Your task to perform on an android device: change timer sound Image 0: 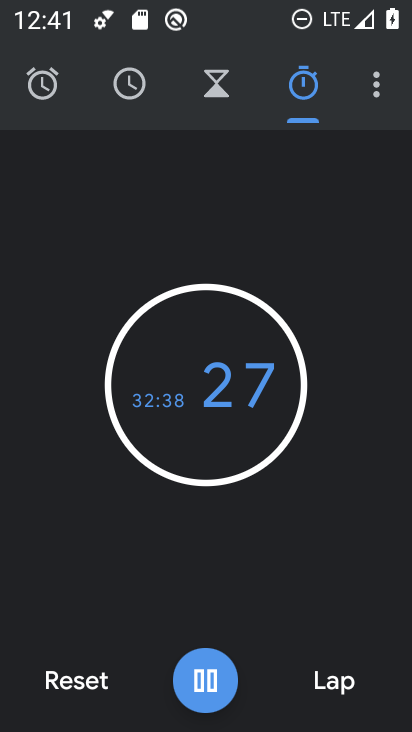
Step 0: click (377, 87)
Your task to perform on an android device: change timer sound Image 1: 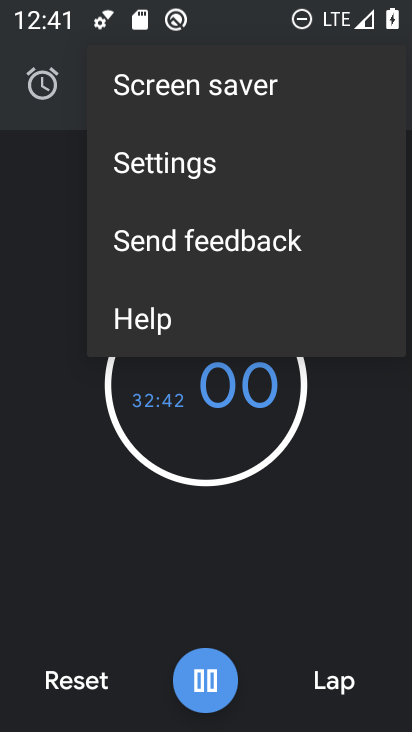
Step 1: click (210, 169)
Your task to perform on an android device: change timer sound Image 2: 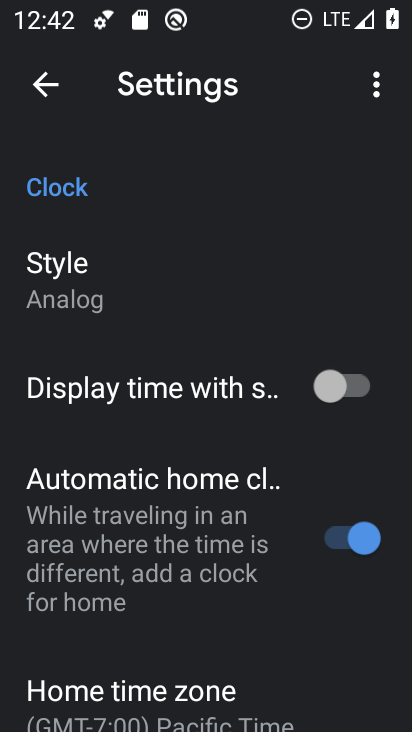
Step 2: drag from (299, 633) to (296, 461)
Your task to perform on an android device: change timer sound Image 3: 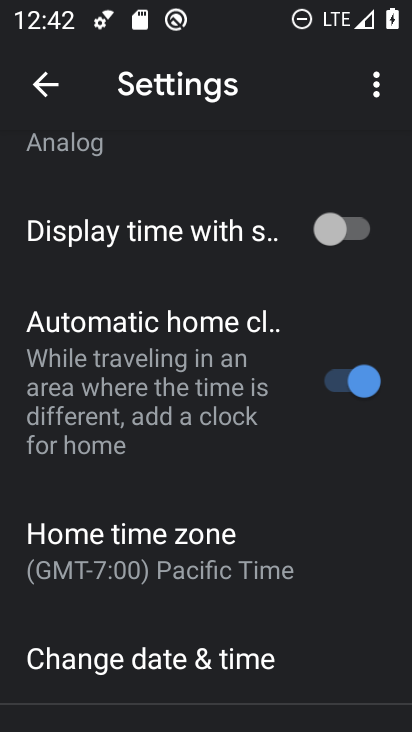
Step 3: drag from (298, 619) to (301, 432)
Your task to perform on an android device: change timer sound Image 4: 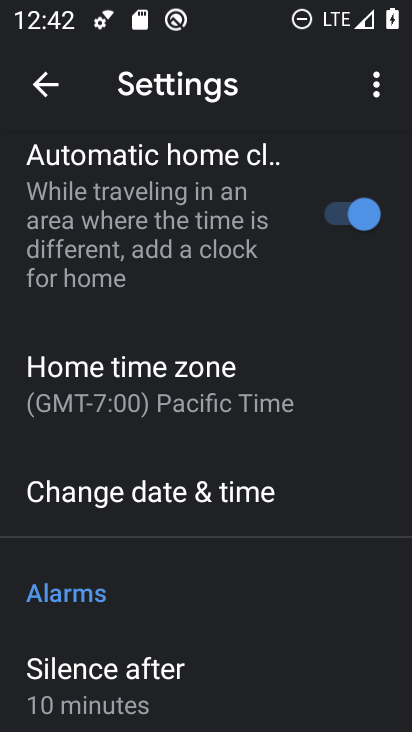
Step 4: drag from (315, 516) to (329, 375)
Your task to perform on an android device: change timer sound Image 5: 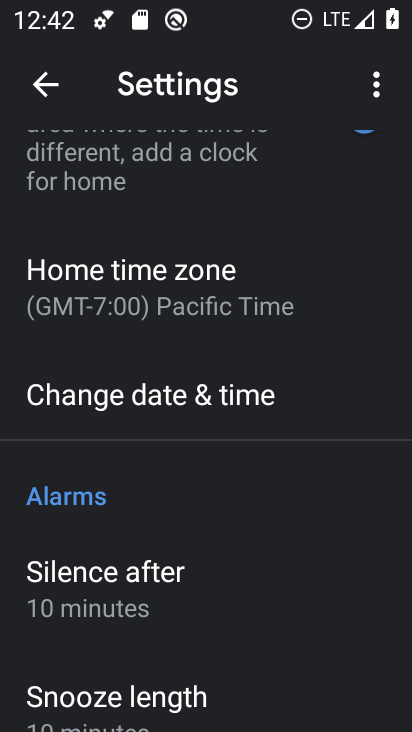
Step 5: drag from (289, 578) to (302, 423)
Your task to perform on an android device: change timer sound Image 6: 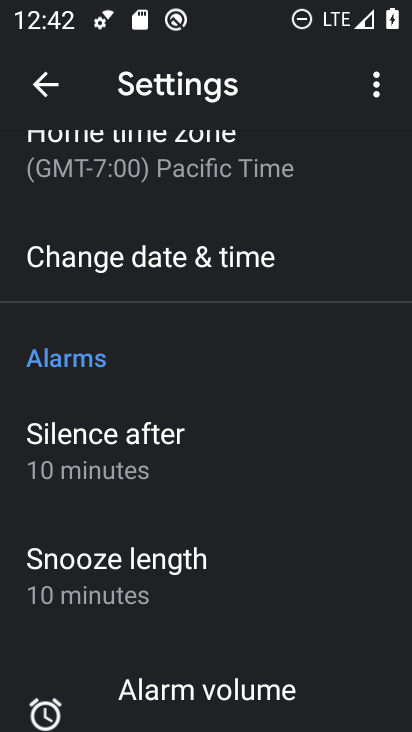
Step 6: drag from (312, 580) to (316, 430)
Your task to perform on an android device: change timer sound Image 7: 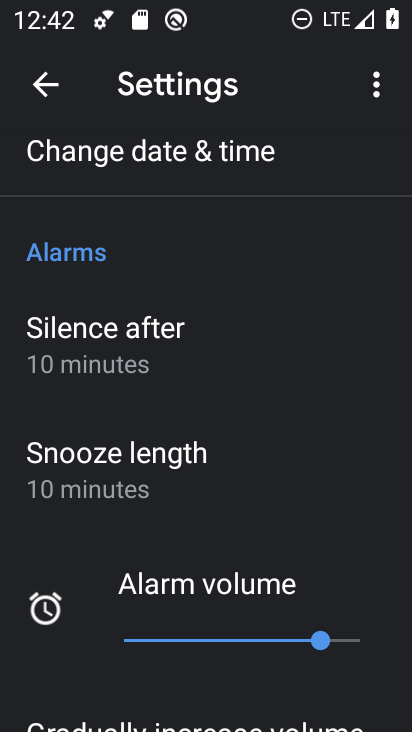
Step 7: drag from (353, 661) to (355, 495)
Your task to perform on an android device: change timer sound Image 8: 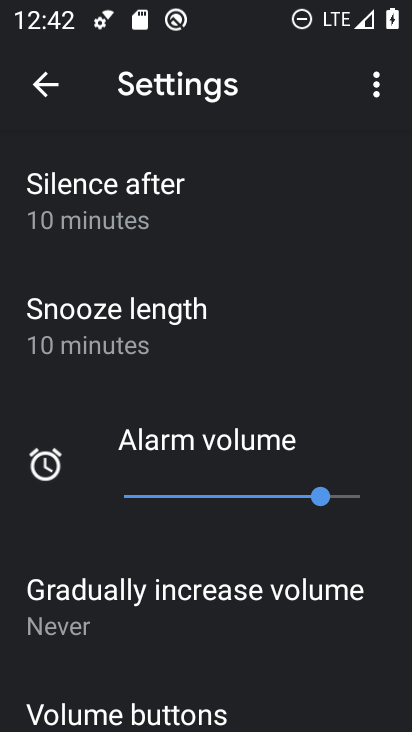
Step 8: drag from (345, 662) to (351, 451)
Your task to perform on an android device: change timer sound Image 9: 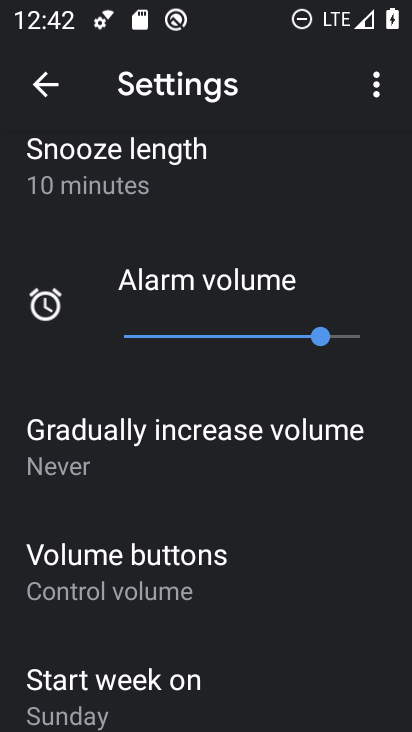
Step 9: drag from (335, 626) to (363, 366)
Your task to perform on an android device: change timer sound Image 10: 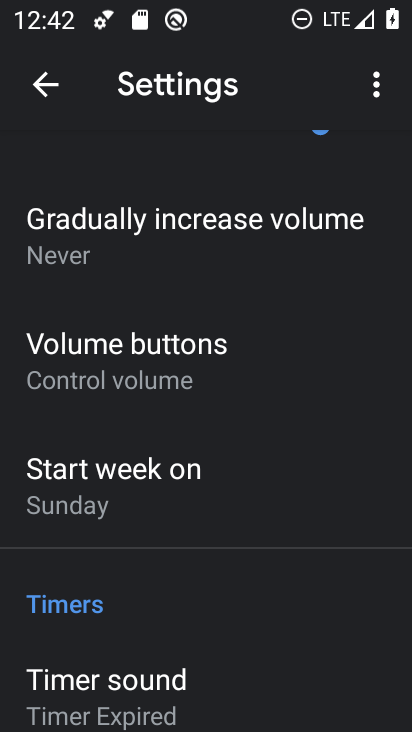
Step 10: drag from (325, 608) to (339, 423)
Your task to perform on an android device: change timer sound Image 11: 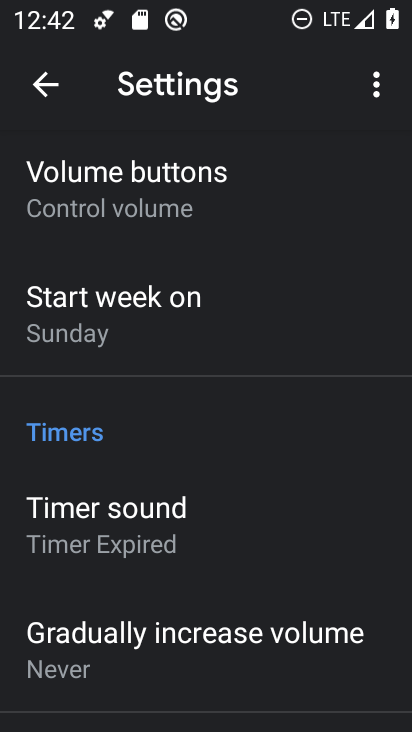
Step 11: drag from (308, 546) to (312, 417)
Your task to perform on an android device: change timer sound Image 12: 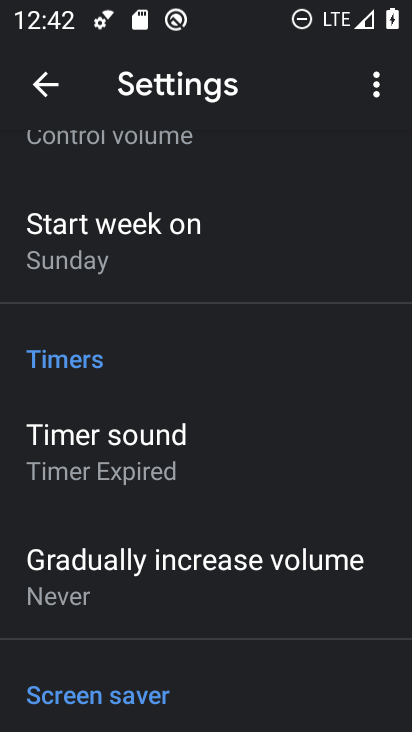
Step 12: click (123, 437)
Your task to perform on an android device: change timer sound Image 13: 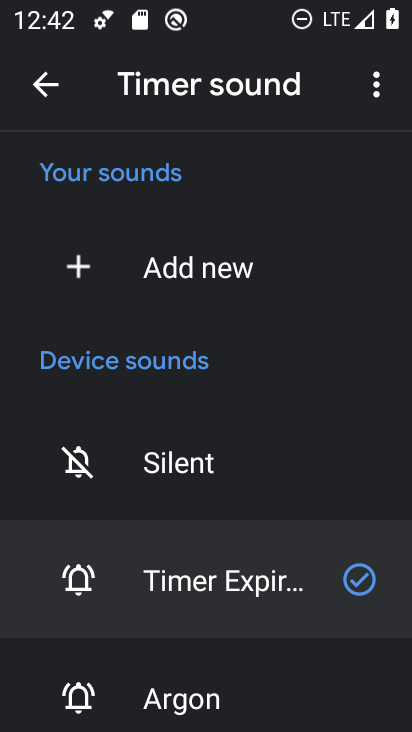
Step 13: drag from (305, 644) to (309, 446)
Your task to perform on an android device: change timer sound Image 14: 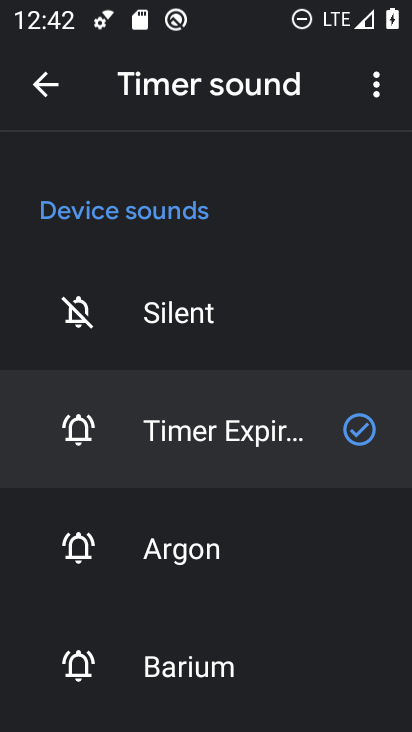
Step 14: drag from (308, 625) to (314, 460)
Your task to perform on an android device: change timer sound Image 15: 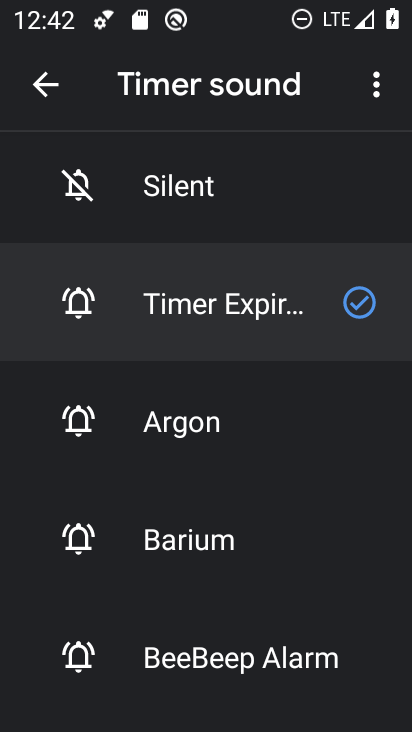
Step 15: click (202, 537)
Your task to perform on an android device: change timer sound Image 16: 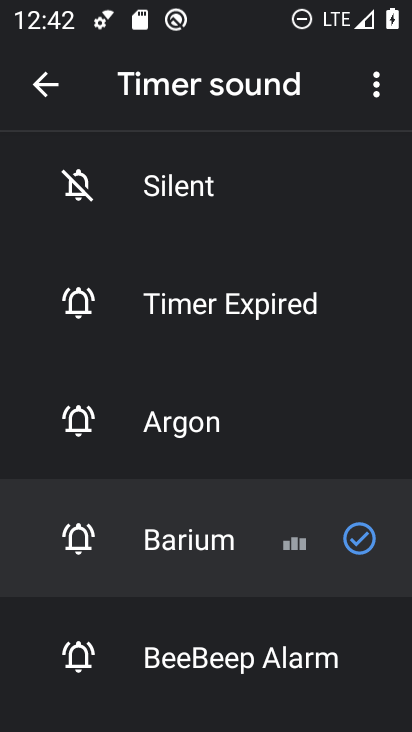
Step 16: task complete